Your task to perform on an android device: open app "The Home Depot" Image 0: 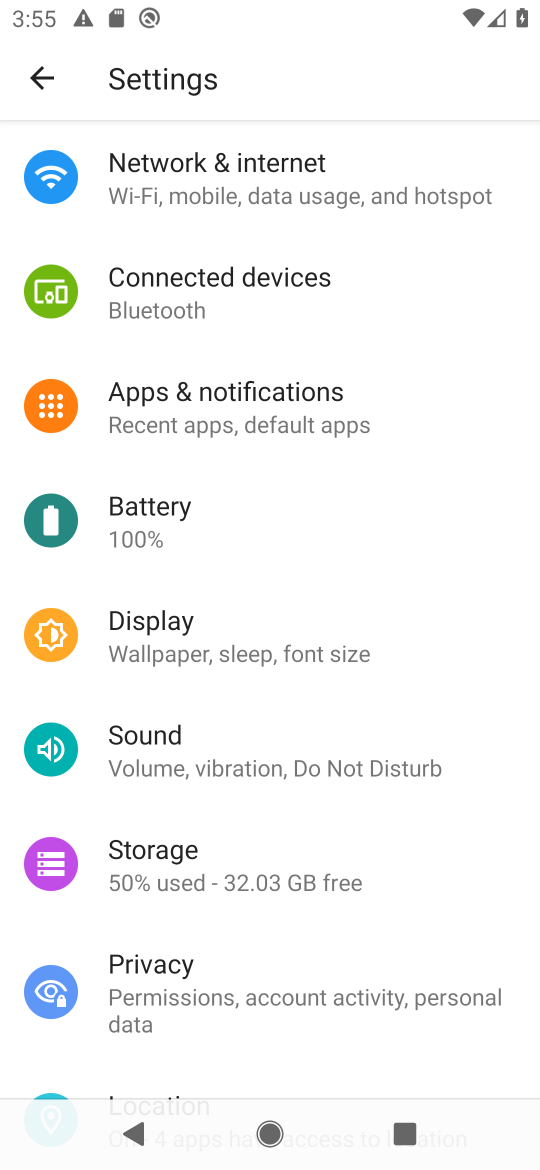
Step 0: press home button
Your task to perform on an android device: open app "The Home Depot" Image 1: 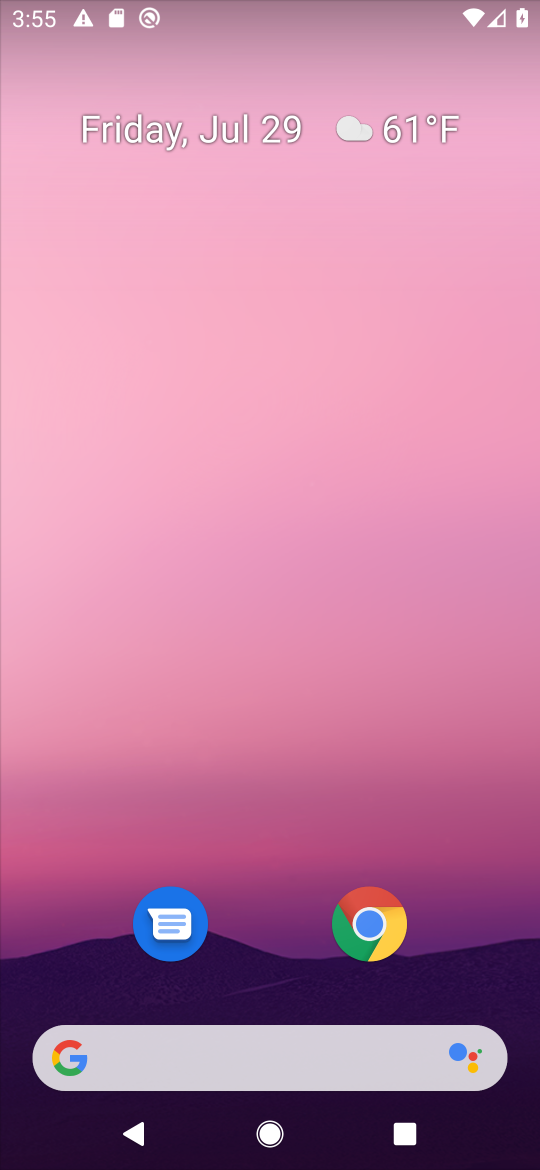
Step 1: drag from (280, 913) to (356, 33)
Your task to perform on an android device: open app "The Home Depot" Image 2: 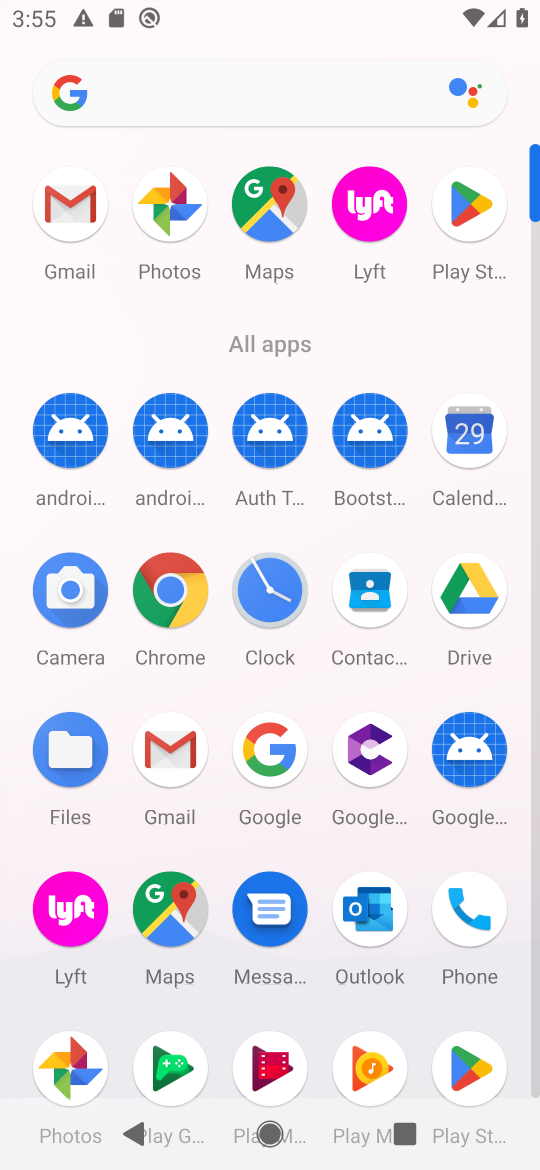
Step 2: click (455, 206)
Your task to perform on an android device: open app "The Home Depot" Image 3: 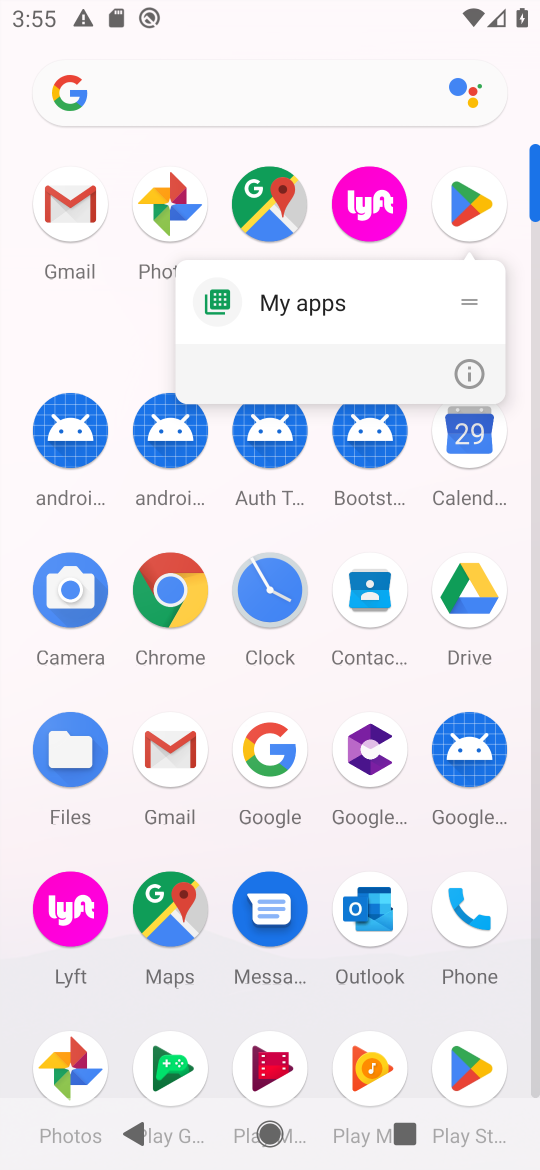
Step 3: click (455, 206)
Your task to perform on an android device: open app "The Home Depot" Image 4: 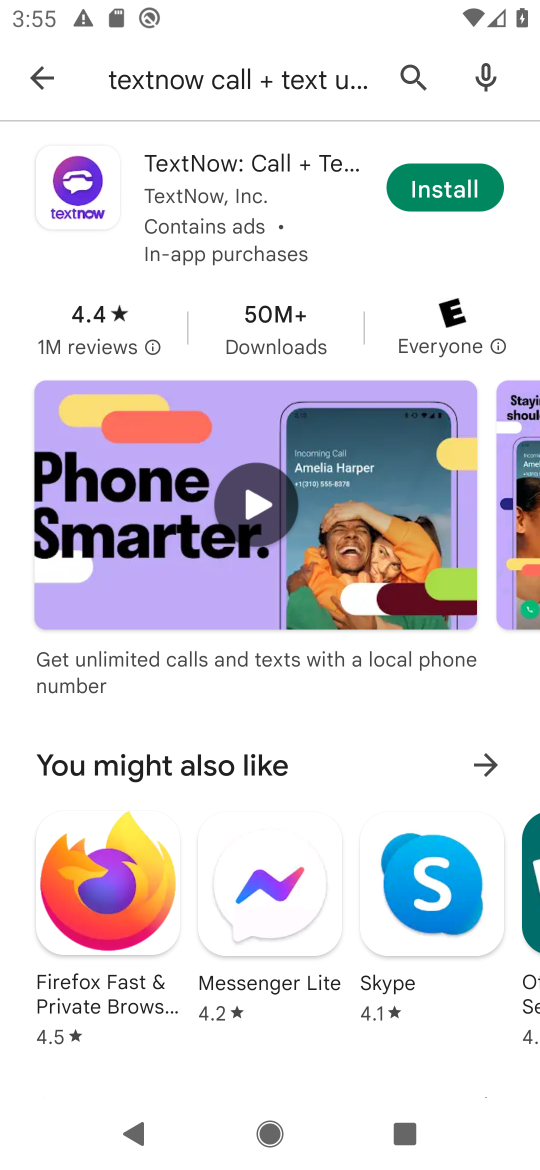
Step 4: click (413, 70)
Your task to perform on an android device: open app "The Home Depot" Image 5: 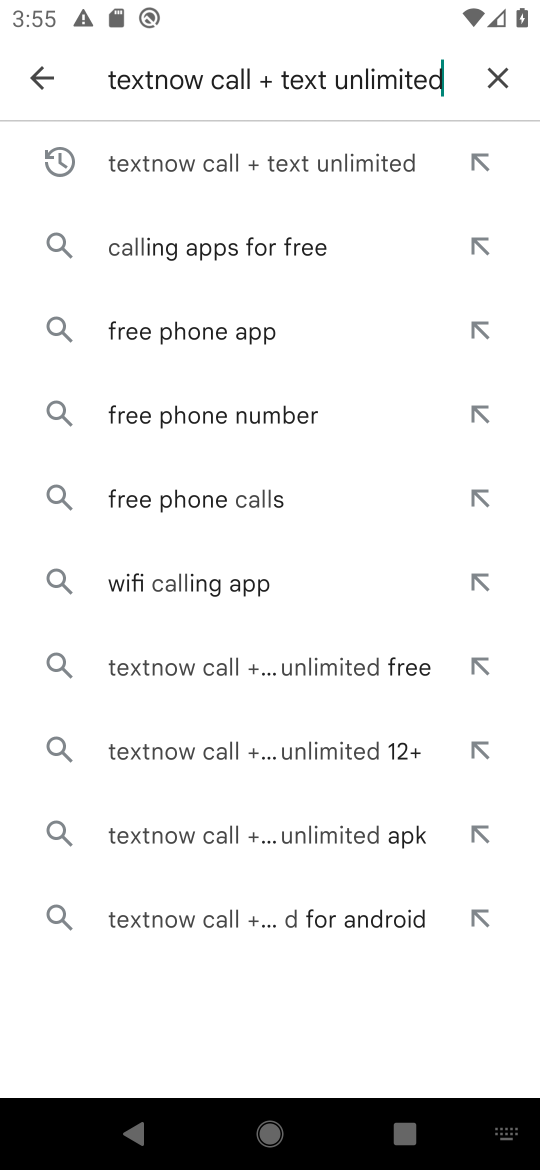
Step 5: click (514, 86)
Your task to perform on an android device: open app "The Home Depot" Image 6: 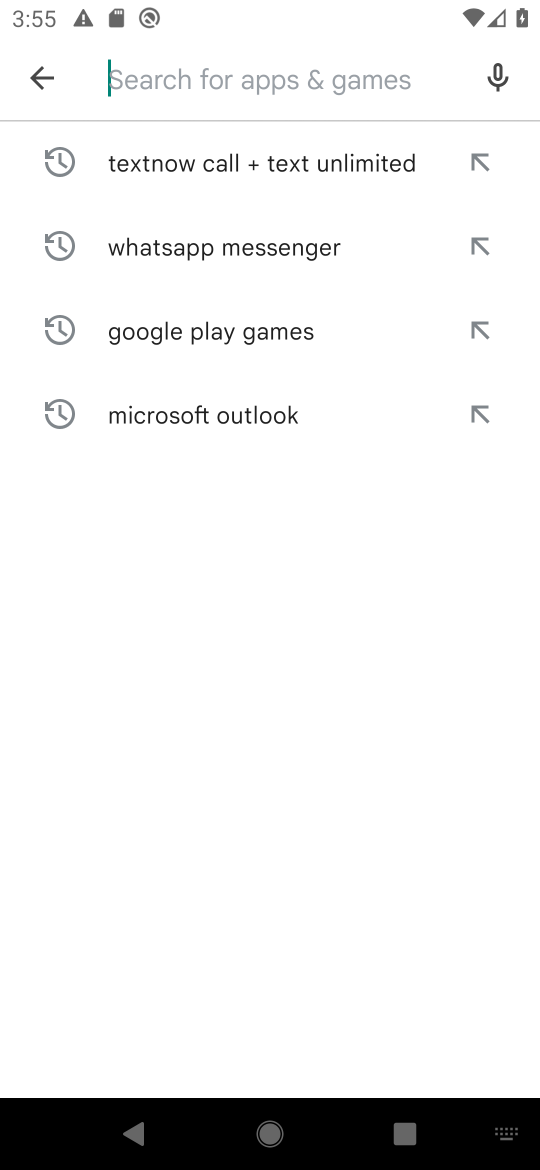
Step 6: click (170, 85)
Your task to perform on an android device: open app "The Home Depot" Image 7: 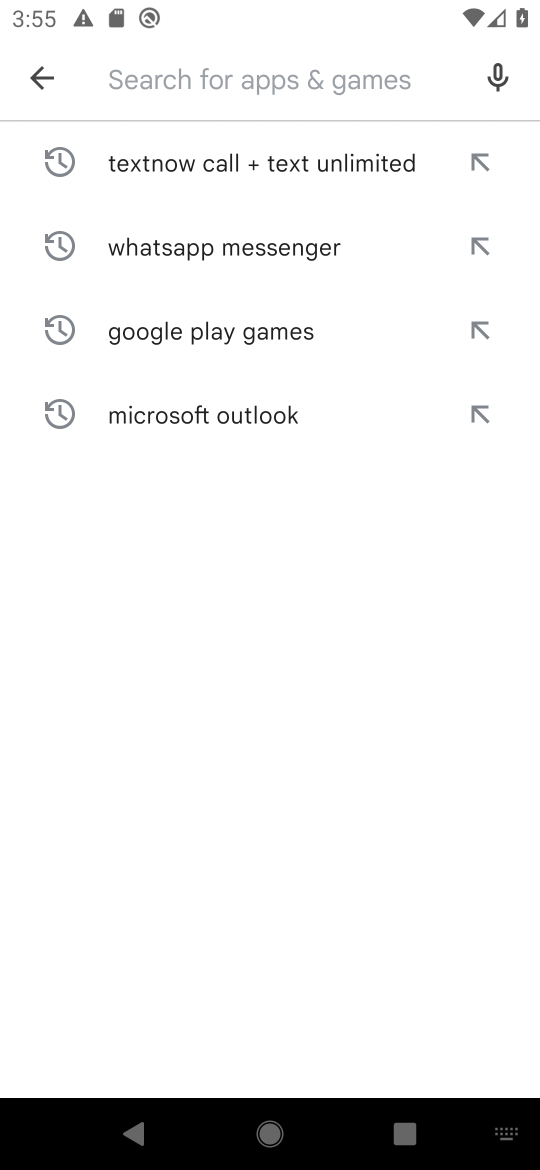
Step 7: type "The Home Depot"
Your task to perform on an android device: open app "The Home Depot" Image 8: 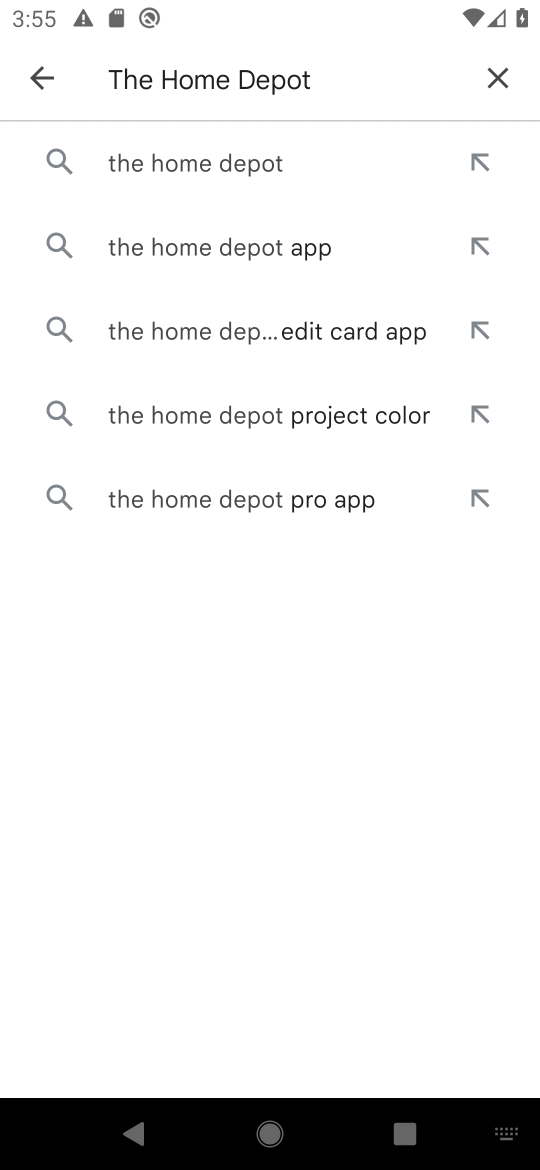
Step 8: click (228, 157)
Your task to perform on an android device: open app "The Home Depot" Image 9: 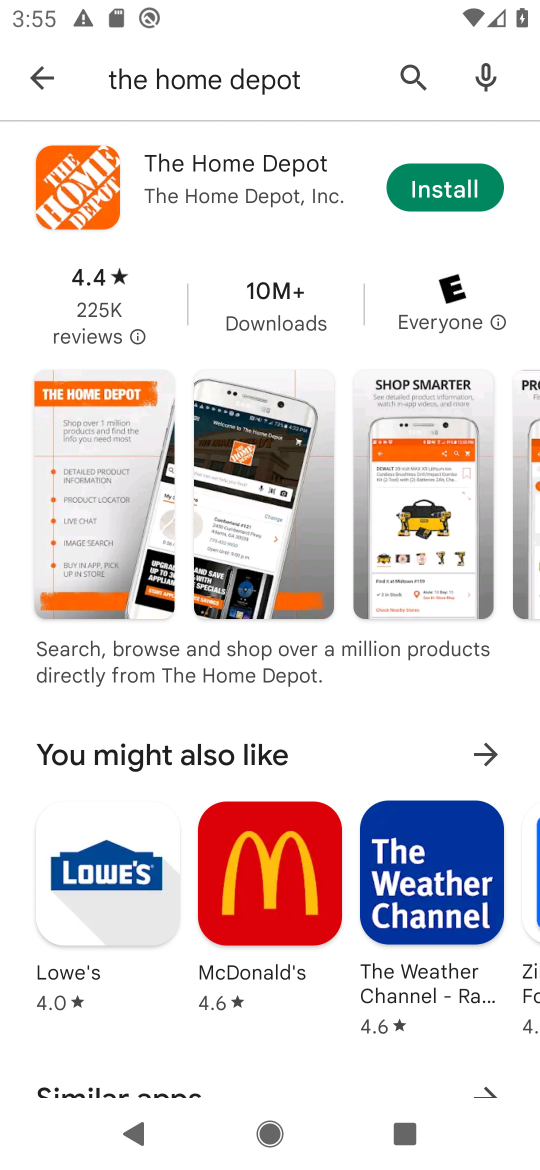
Step 9: task complete